Your task to perform on an android device: Turn off the flashlight Image 0: 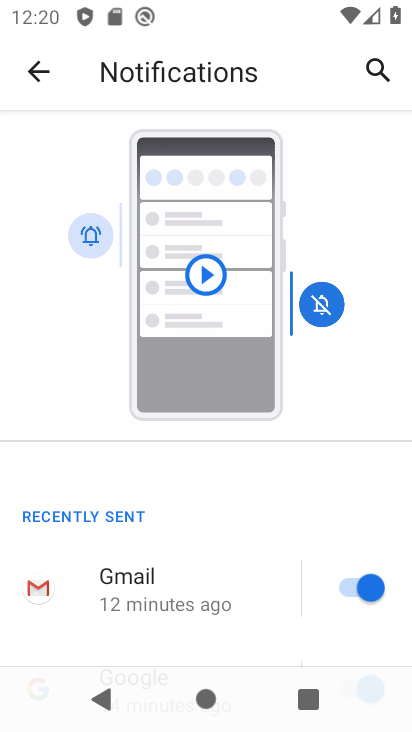
Step 0: task impossible